Your task to perform on an android device: Show the shopping cart on ebay.com. Search for "usb-c to usb-b" on ebay.com, select the first entry, and add it to the cart. Image 0: 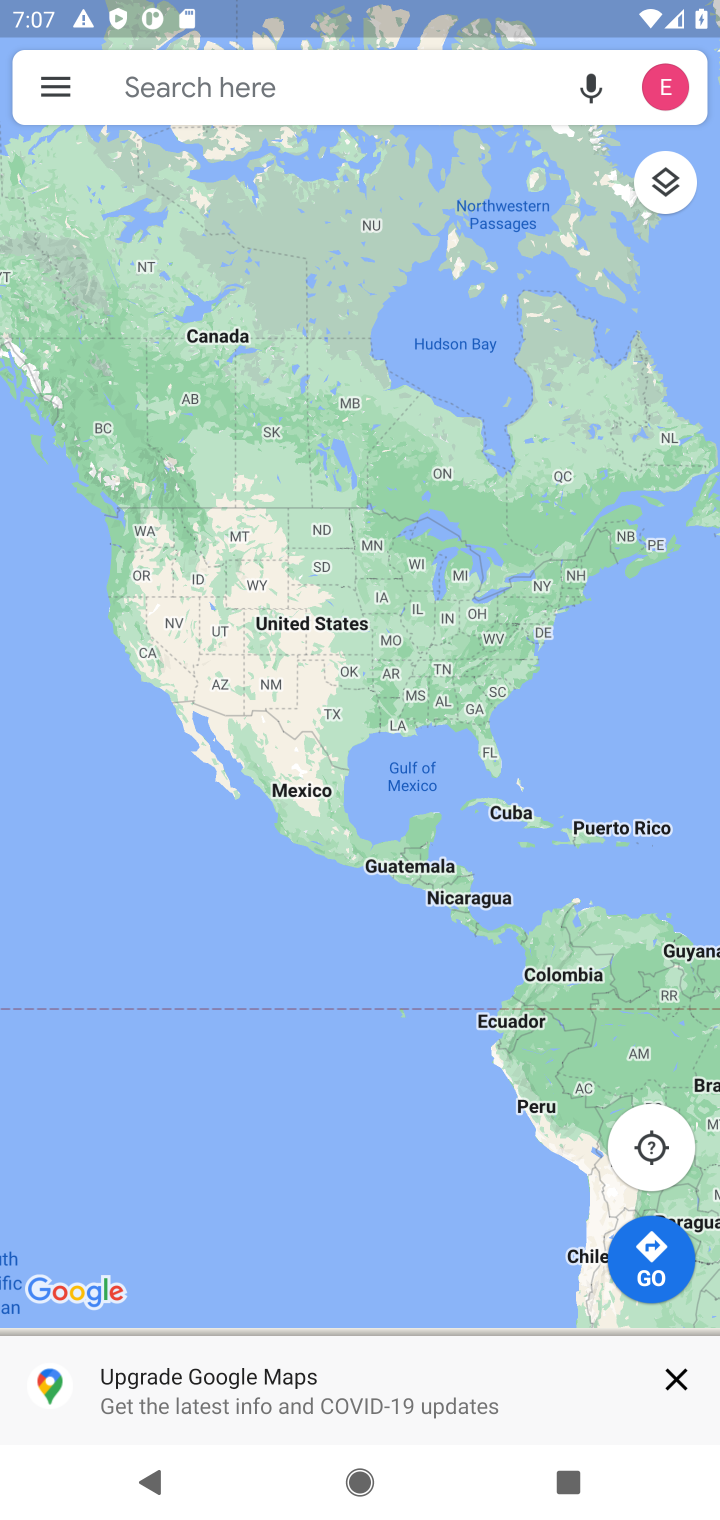
Step 0: press home button
Your task to perform on an android device: Show the shopping cart on ebay.com. Search for "usb-c to usb-b" on ebay.com, select the first entry, and add it to the cart. Image 1: 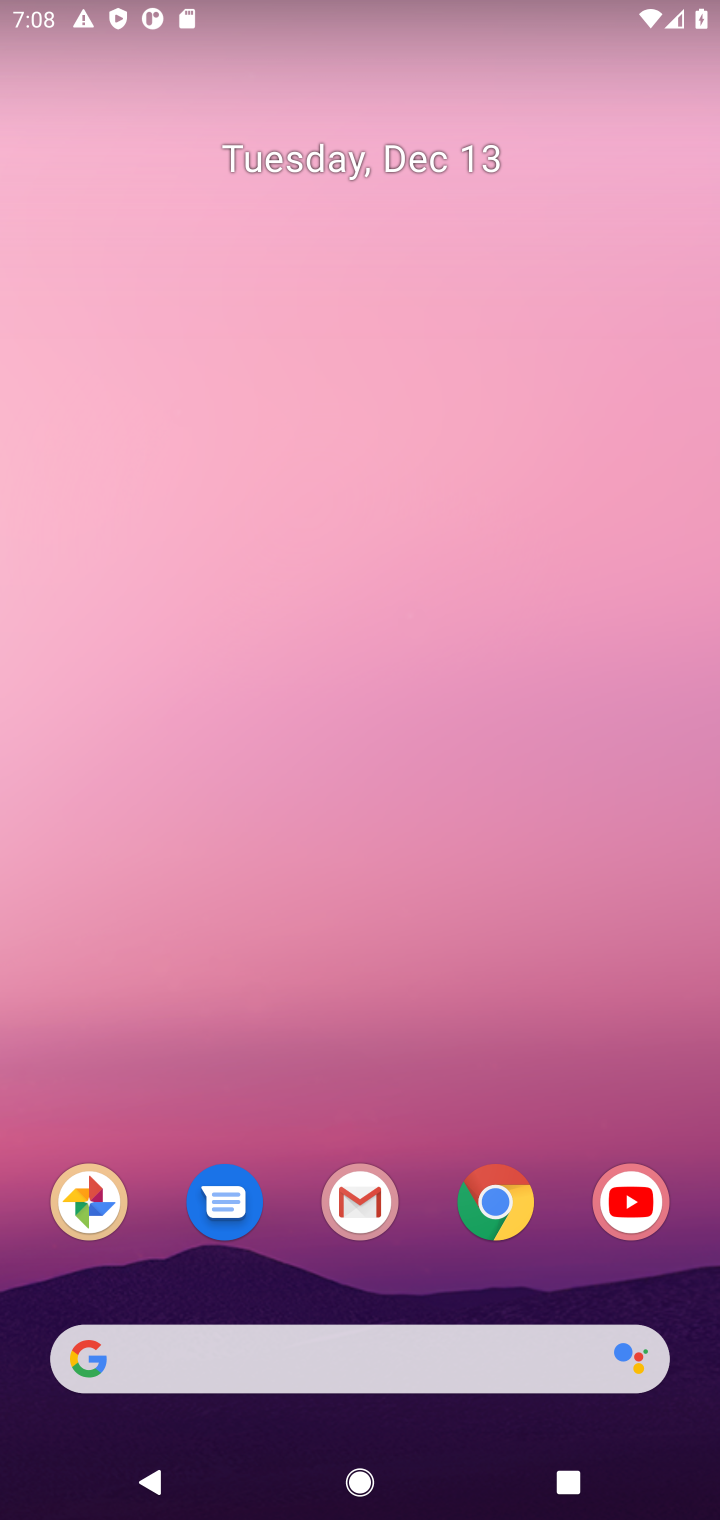
Step 1: click (496, 1218)
Your task to perform on an android device: Show the shopping cart on ebay.com. Search for "usb-c to usb-b" on ebay.com, select the first entry, and add it to the cart. Image 2: 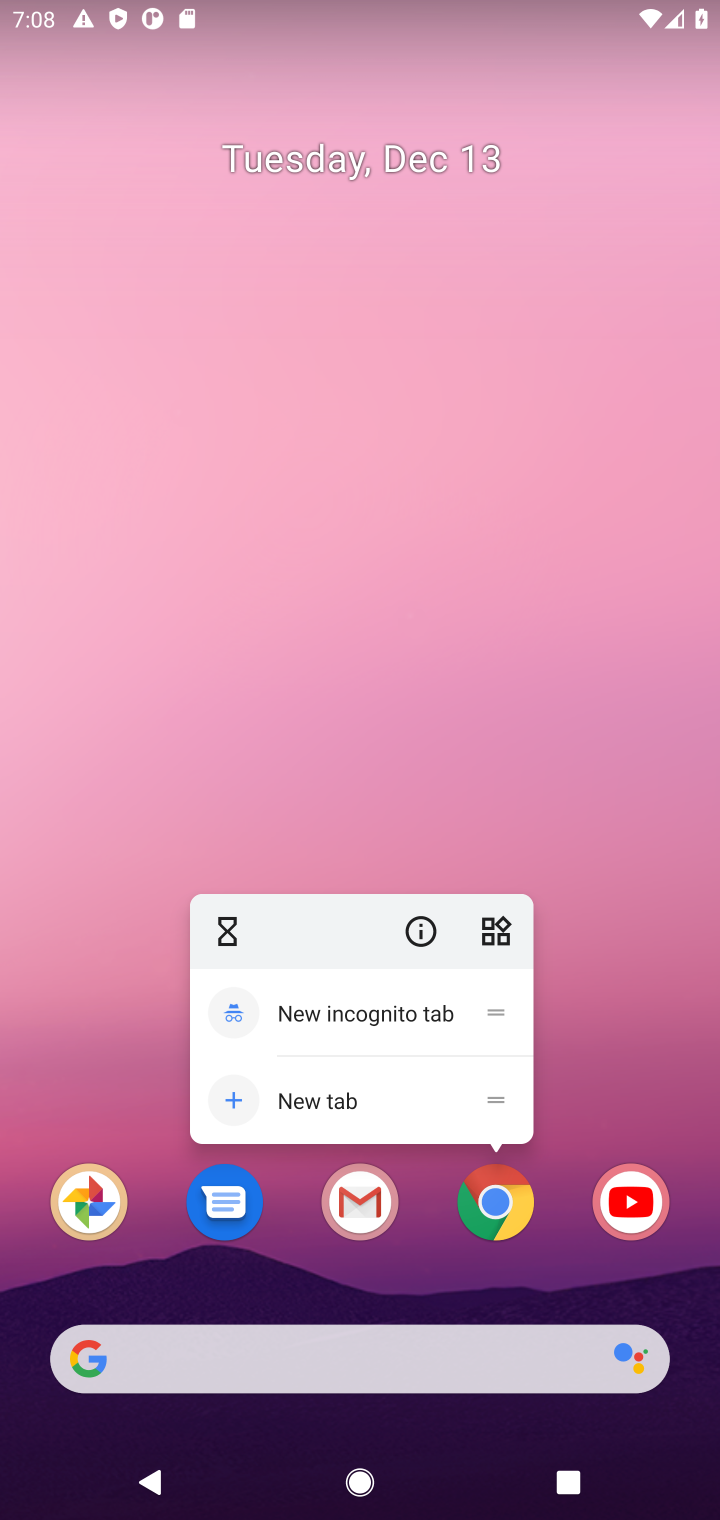
Step 2: click (496, 1218)
Your task to perform on an android device: Show the shopping cart on ebay.com. Search for "usb-c to usb-b" on ebay.com, select the first entry, and add it to the cart. Image 3: 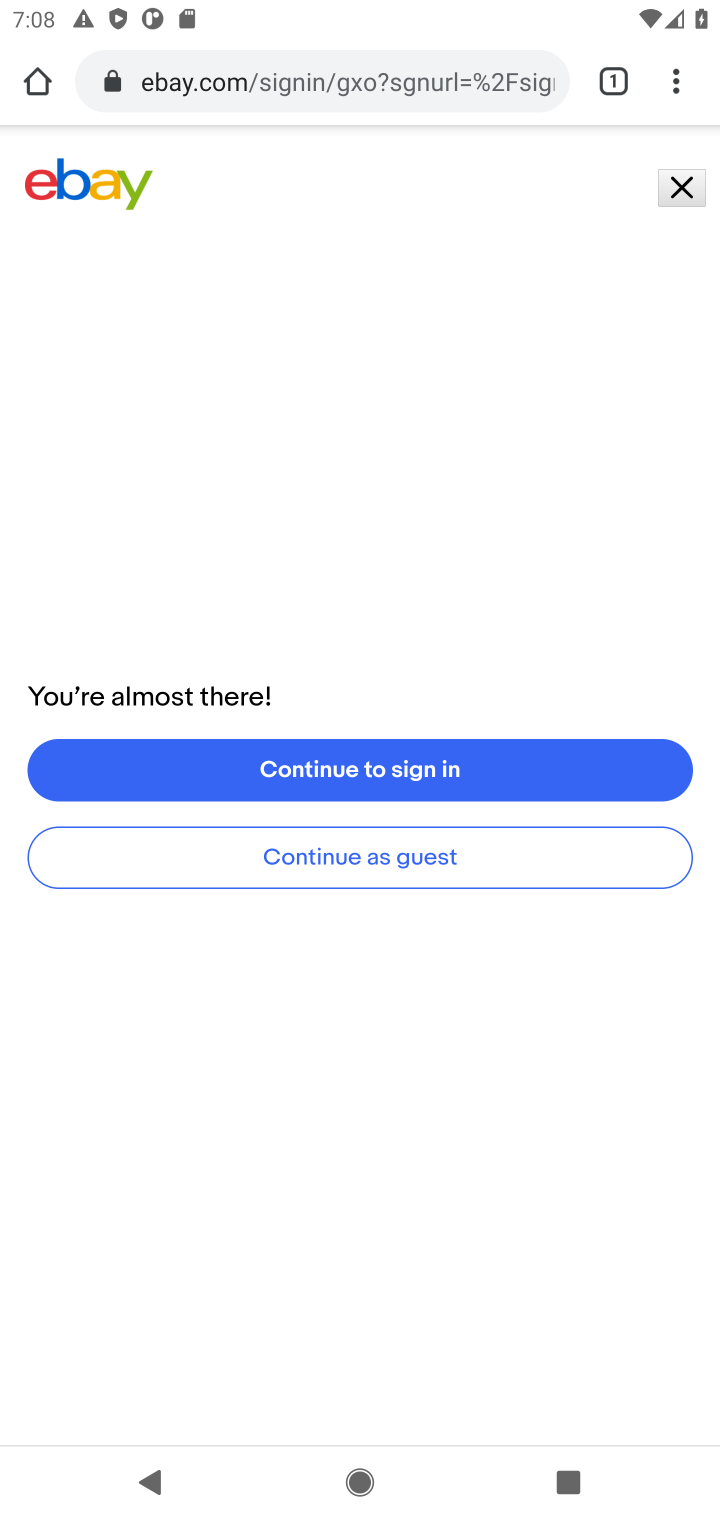
Step 3: click (681, 182)
Your task to perform on an android device: Show the shopping cart on ebay.com. Search for "usb-c to usb-b" on ebay.com, select the first entry, and add it to the cart. Image 4: 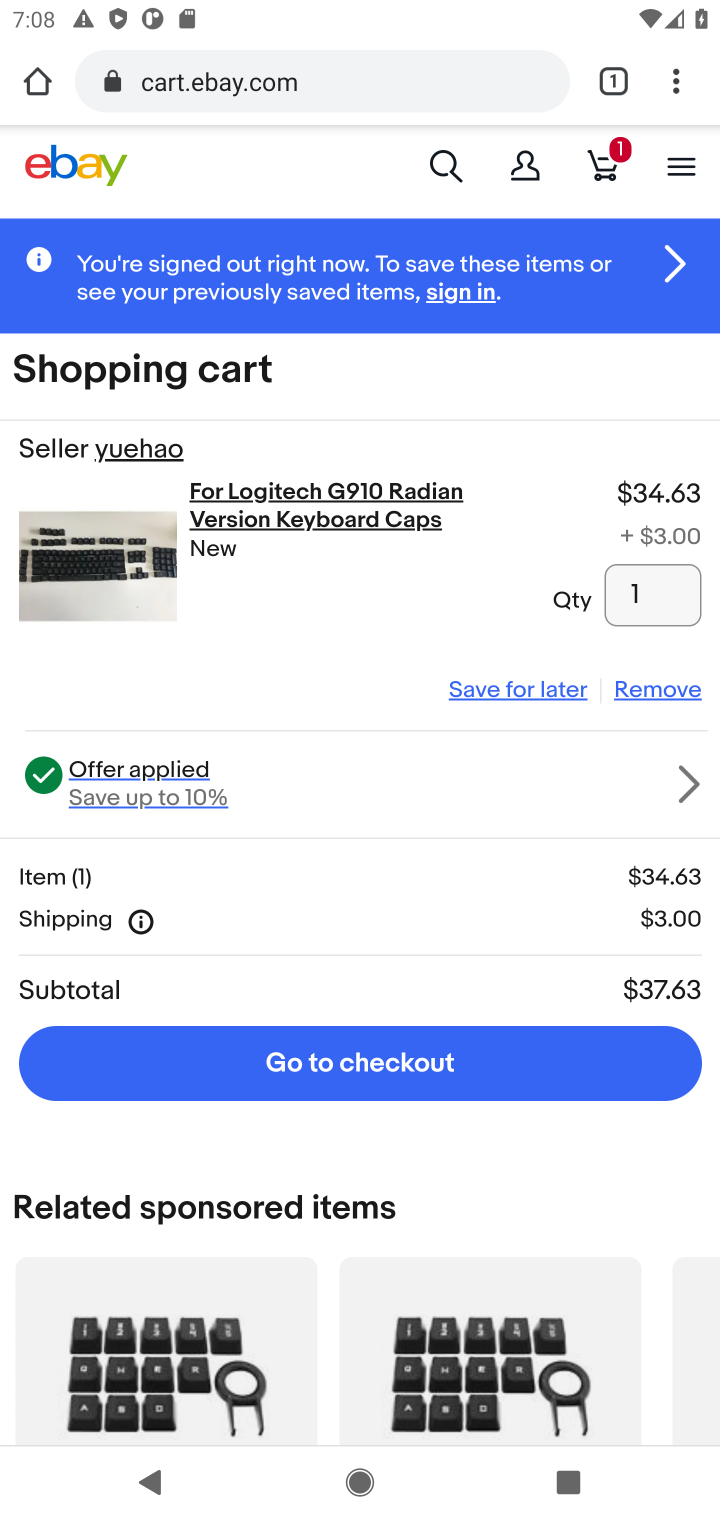
Step 4: click (591, 179)
Your task to perform on an android device: Show the shopping cart on ebay.com. Search for "usb-c to usb-b" on ebay.com, select the first entry, and add it to the cart. Image 5: 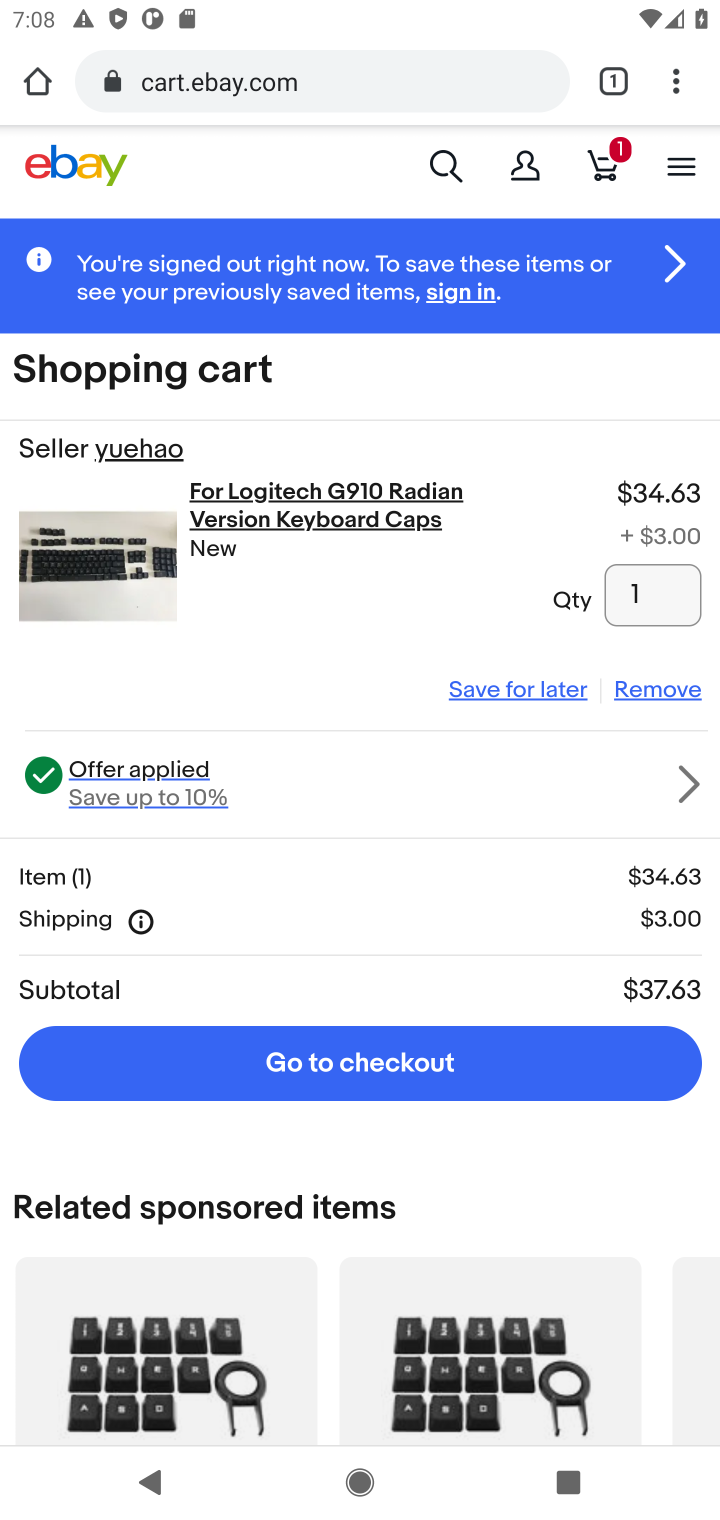
Step 5: click (439, 165)
Your task to perform on an android device: Show the shopping cart on ebay.com. Search for "usb-c to usb-b" on ebay.com, select the first entry, and add it to the cart. Image 6: 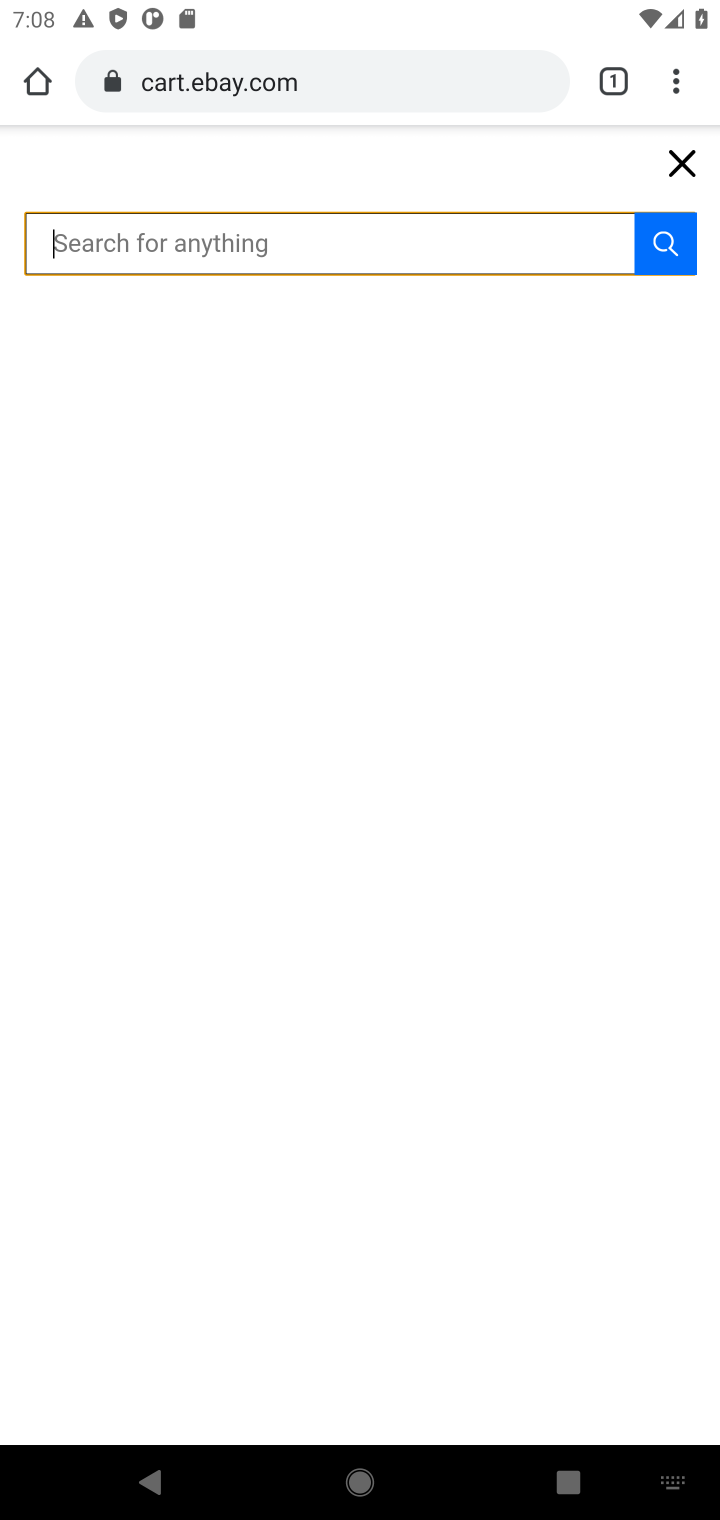
Step 6: type "usb-c to usb-b"
Your task to perform on an android device: Show the shopping cart on ebay.com. Search for "usb-c to usb-b" on ebay.com, select the first entry, and add it to the cart. Image 7: 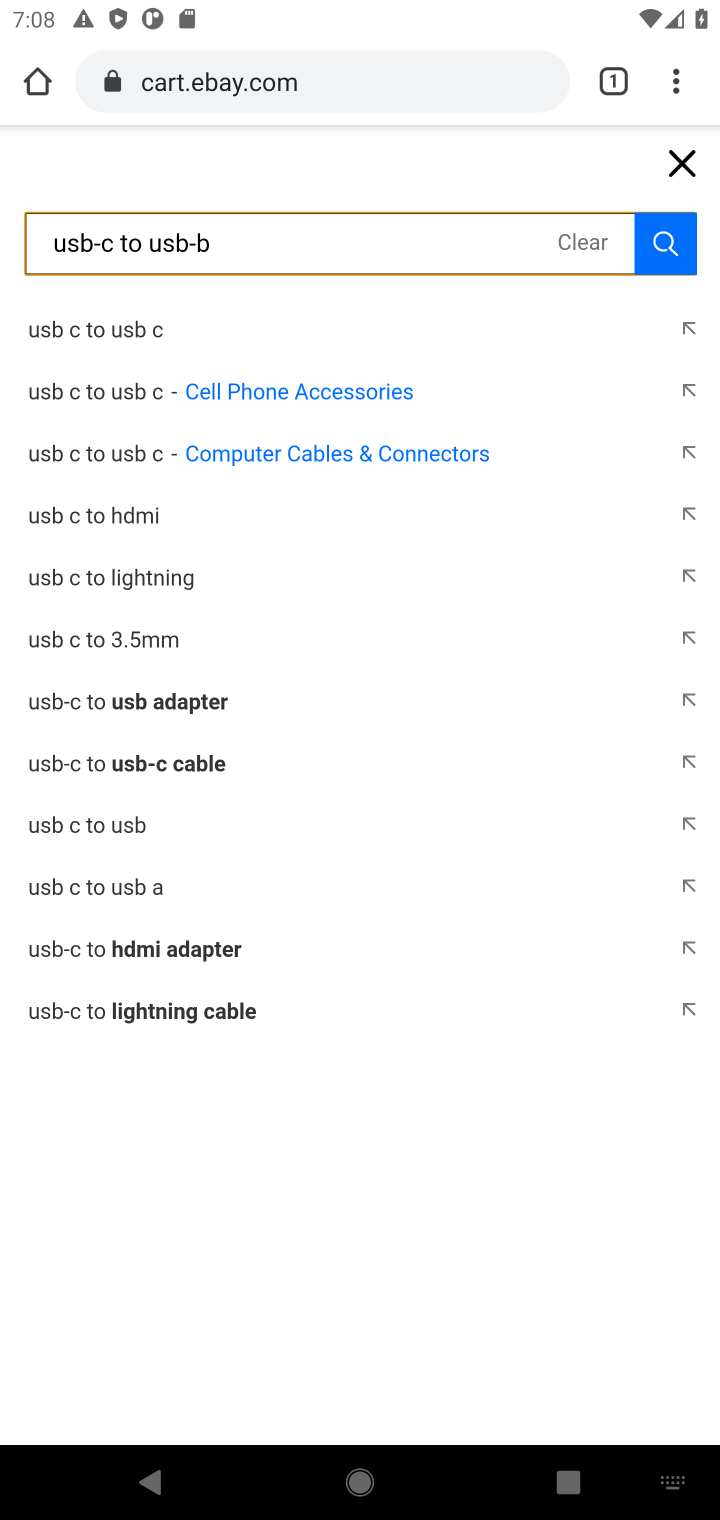
Step 7: click (668, 230)
Your task to perform on an android device: Show the shopping cart on ebay.com. Search for "usb-c to usb-b" on ebay.com, select the first entry, and add it to the cart. Image 8: 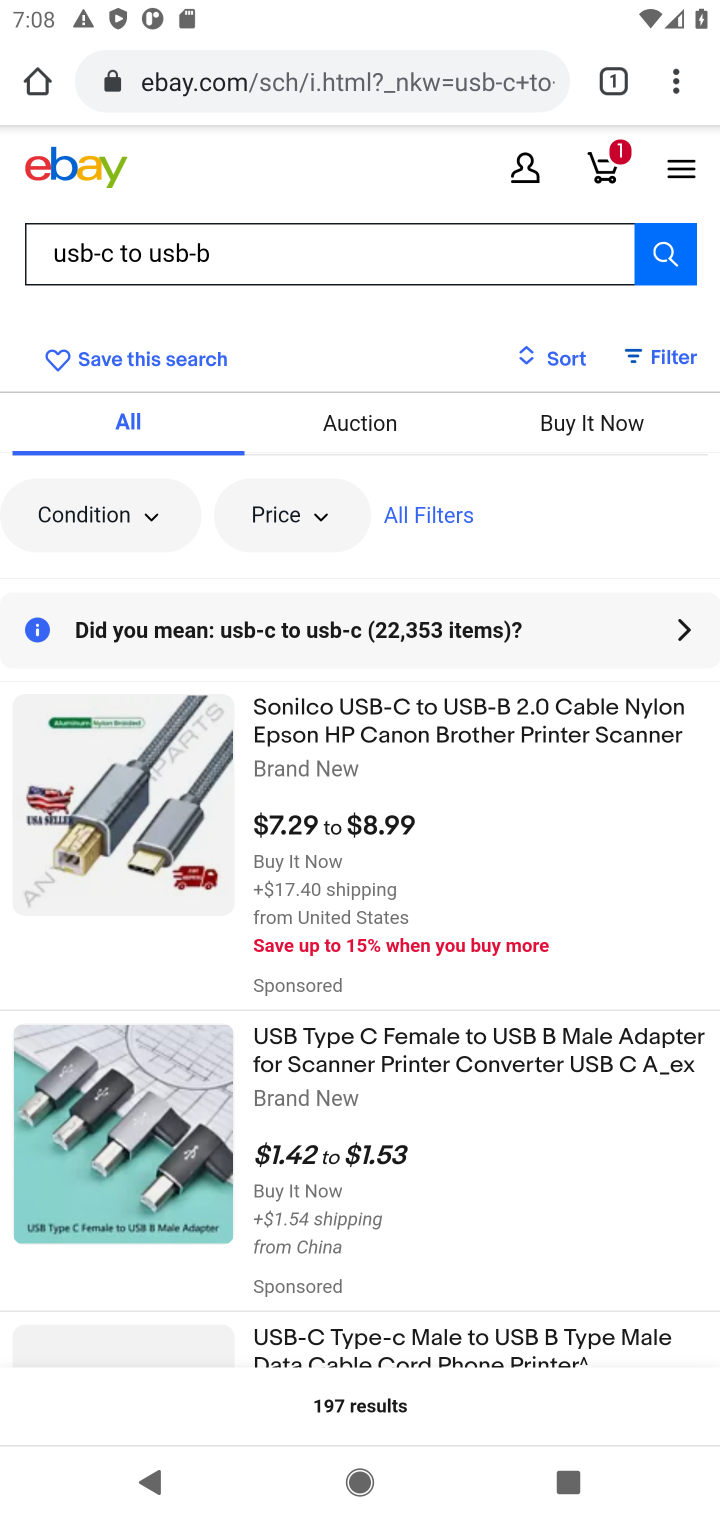
Step 8: drag from (435, 886) to (435, 654)
Your task to perform on an android device: Show the shopping cart on ebay.com. Search for "usb-c to usb-b" on ebay.com, select the first entry, and add it to the cart. Image 9: 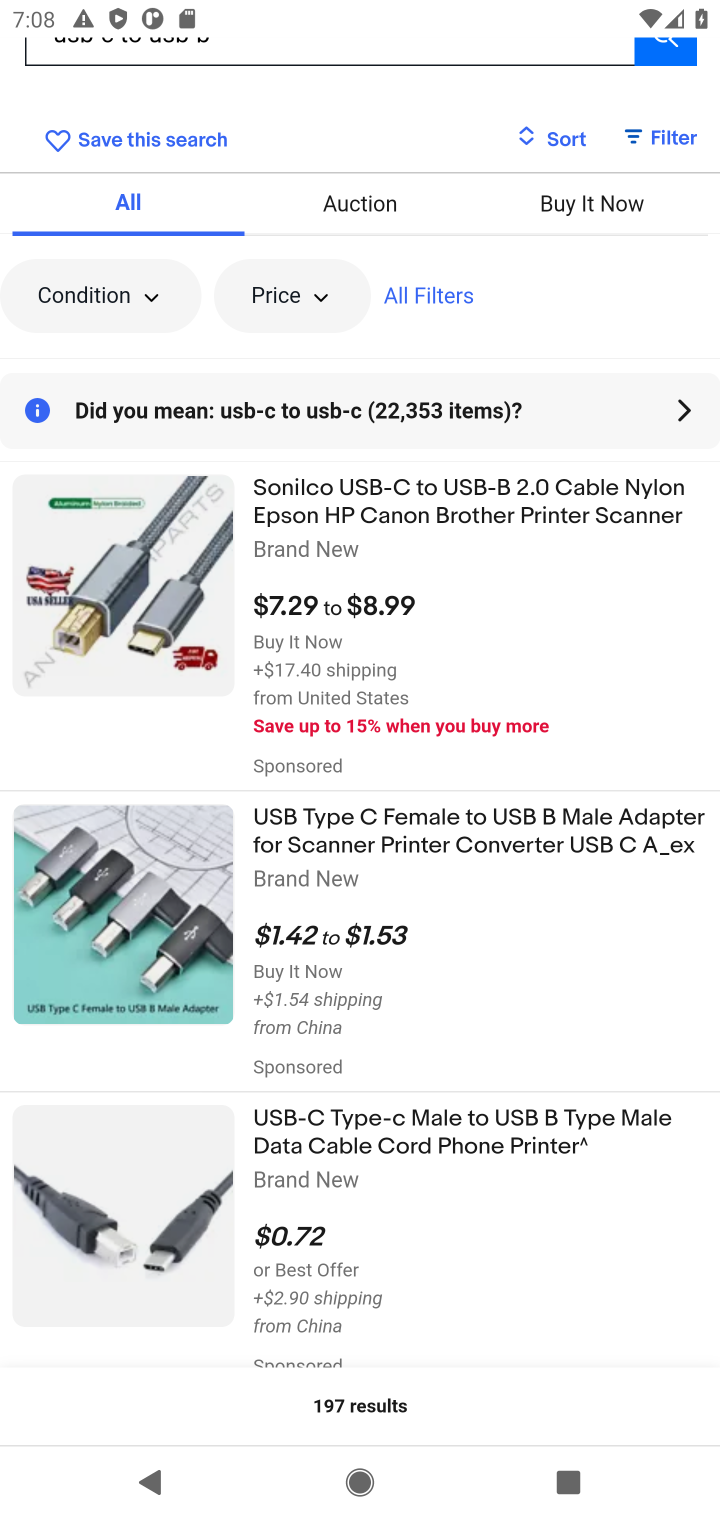
Step 9: click (392, 525)
Your task to perform on an android device: Show the shopping cart on ebay.com. Search for "usb-c to usb-b" on ebay.com, select the first entry, and add it to the cart. Image 10: 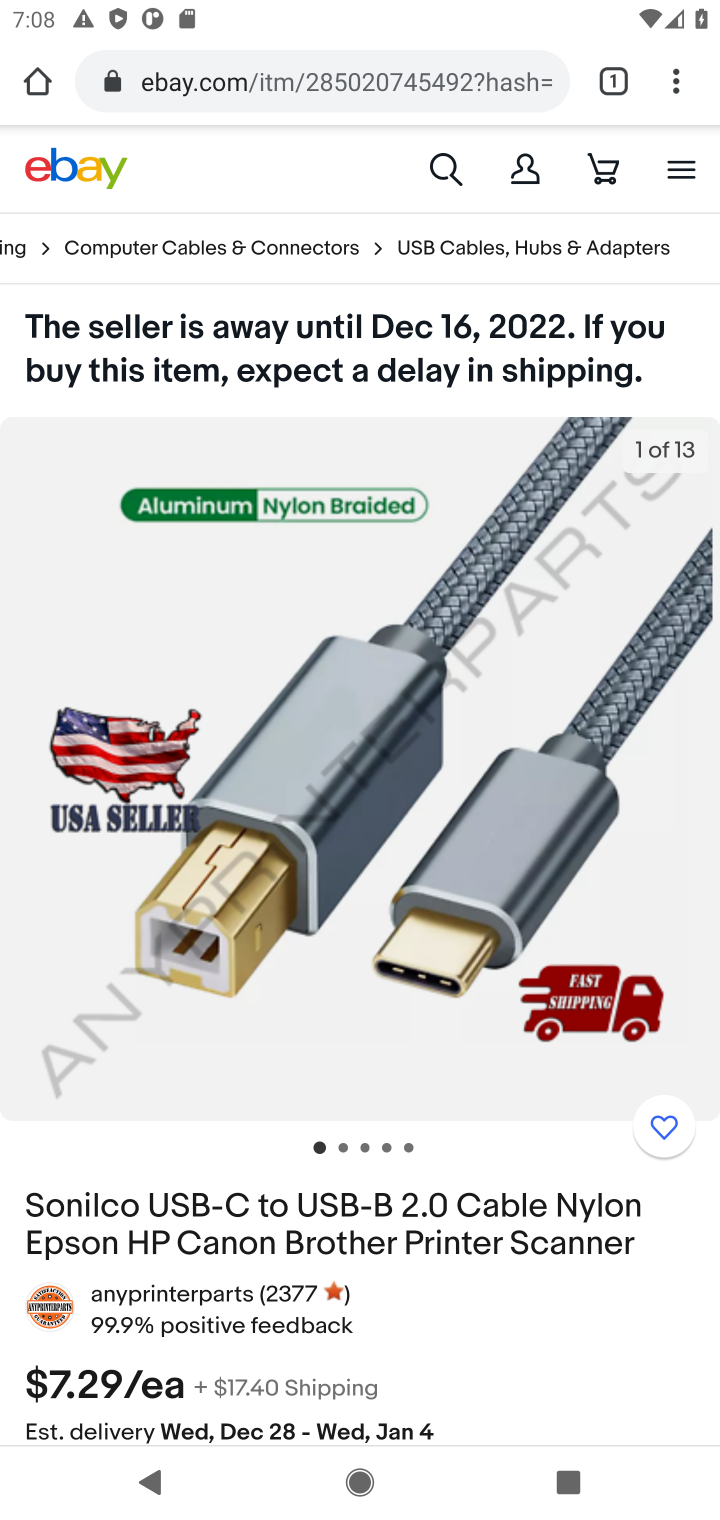
Step 10: drag from (361, 1180) to (304, 554)
Your task to perform on an android device: Show the shopping cart on ebay.com. Search for "usb-c to usb-b" on ebay.com, select the first entry, and add it to the cart. Image 11: 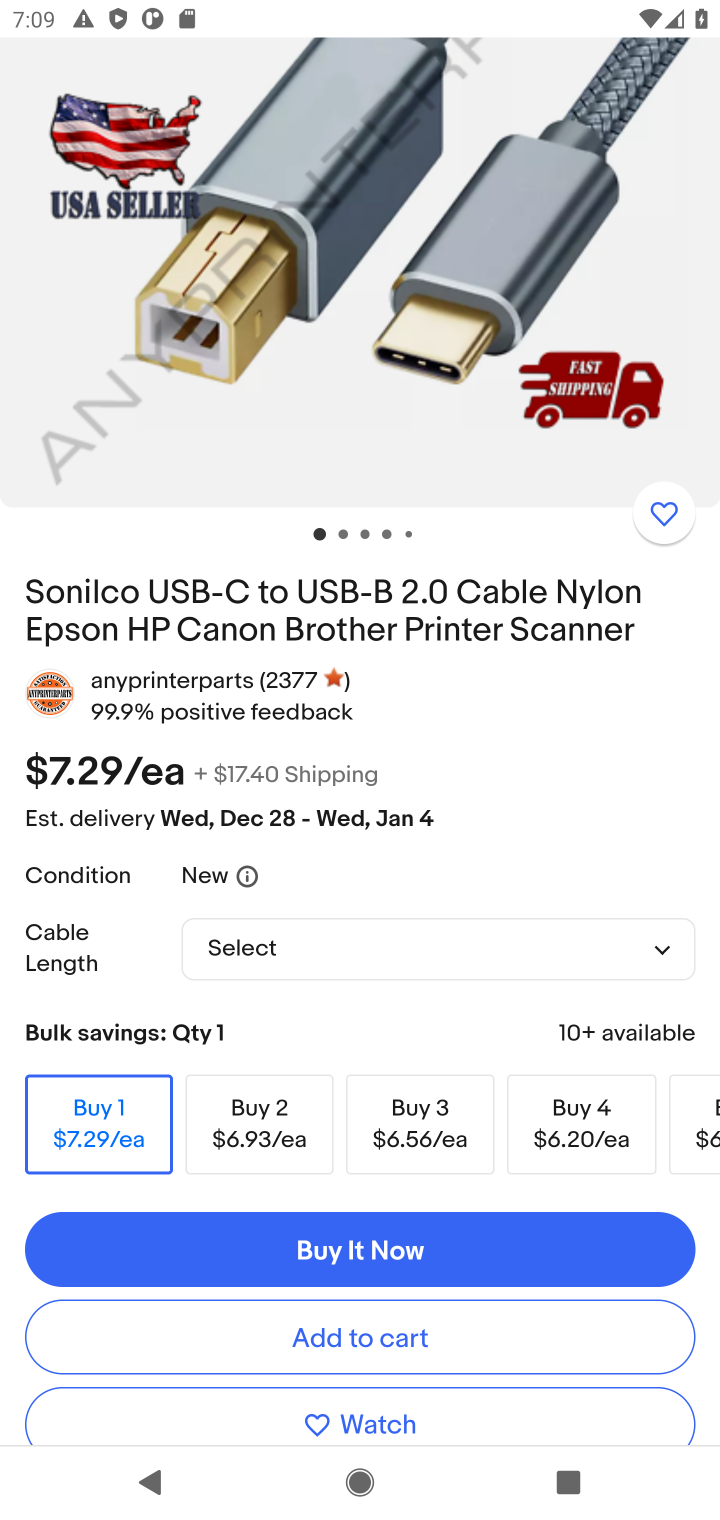
Step 11: click (336, 1338)
Your task to perform on an android device: Show the shopping cart on ebay.com. Search for "usb-c to usb-b" on ebay.com, select the first entry, and add it to the cart. Image 12: 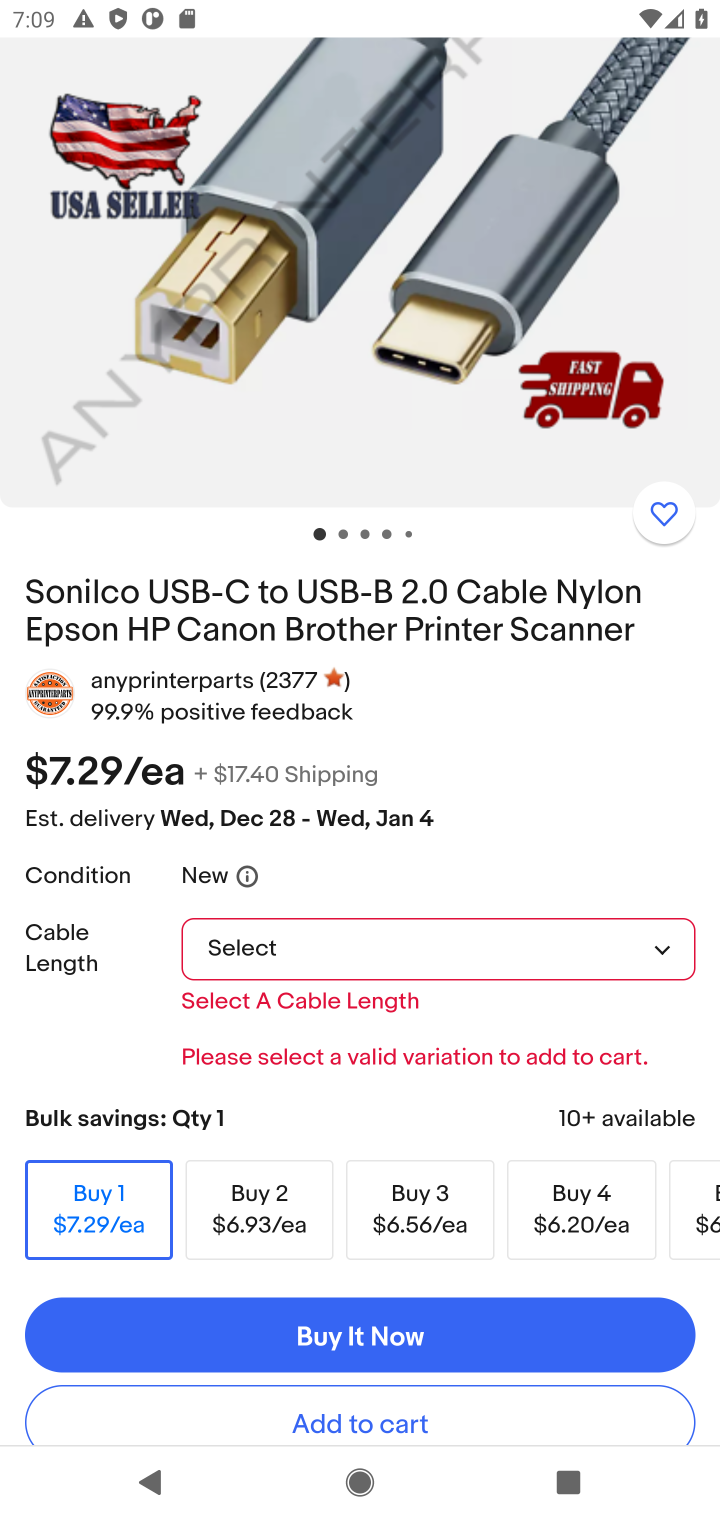
Step 12: click (662, 944)
Your task to perform on an android device: Show the shopping cart on ebay.com. Search for "usb-c to usb-b" on ebay.com, select the first entry, and add it to the cart. Image 13: 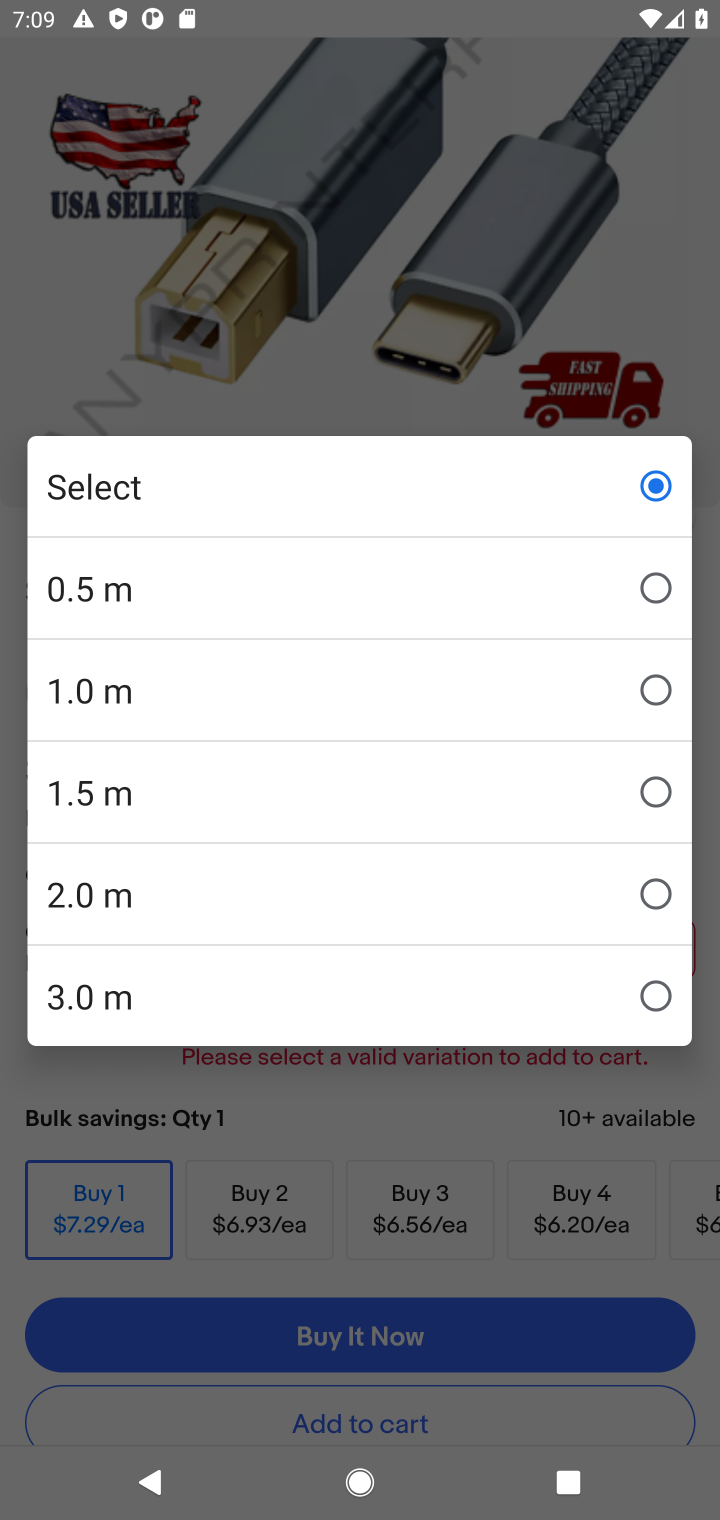
Step 13: click (70, 681)
Your task to perform on an android device: Show the shopping cart on ebay.com. Search for "usb-c to usb-b" on ebay.com, select the first entry, and add it to the cart. Image 14: 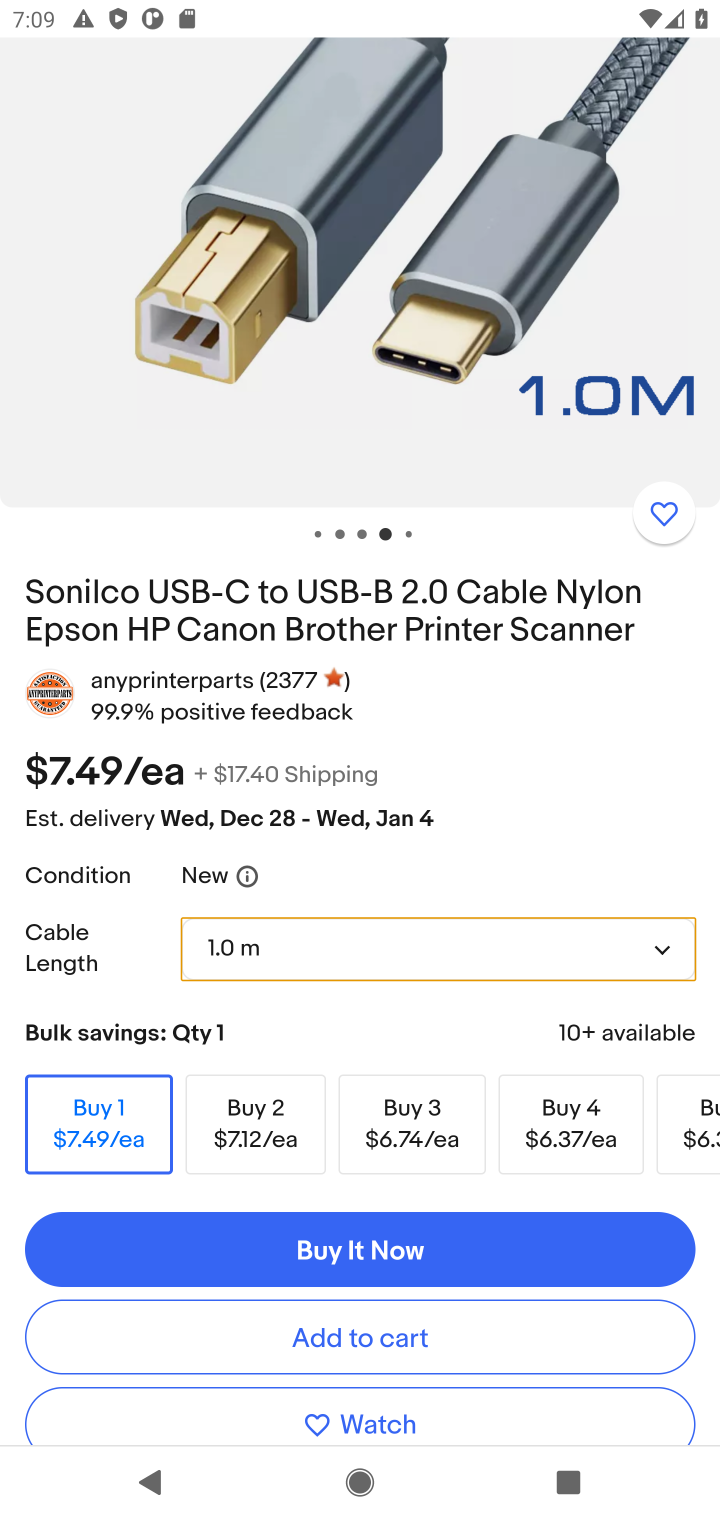
Step 14: click (270, 1327)
Your task to perform on an android device: Show the shopping cart on ebay.com. Search for "usb-c to usb-b" on ebay.com, select the first entry, and add it to the cart. Image 15: 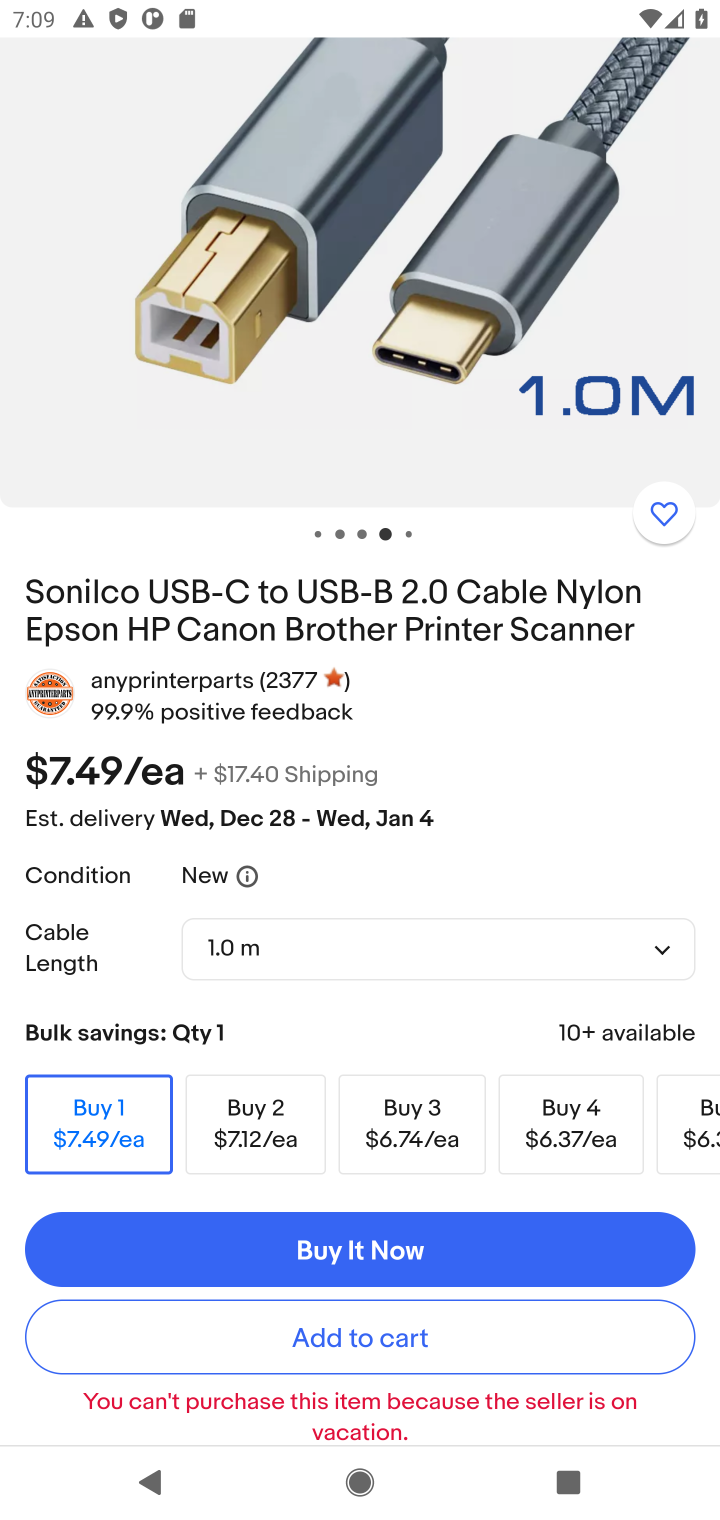
Step 15: task complete